Your task to perform on an android device: open app "Viber Messenger" Image 0: 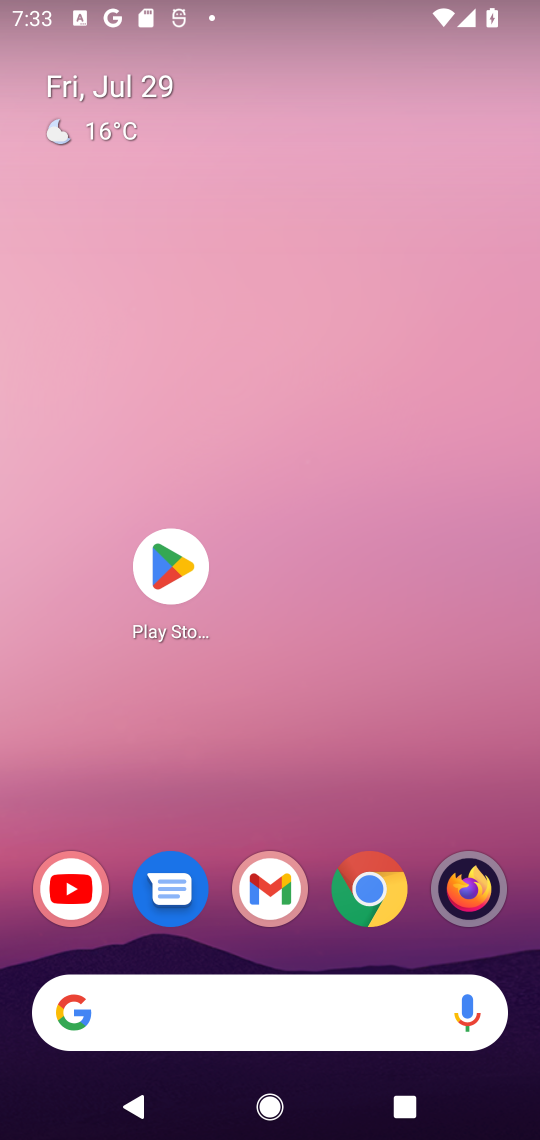
Step 0: click (173, 552)
Your task to perform on an android device: open app "Viber Messenger" Image 1: 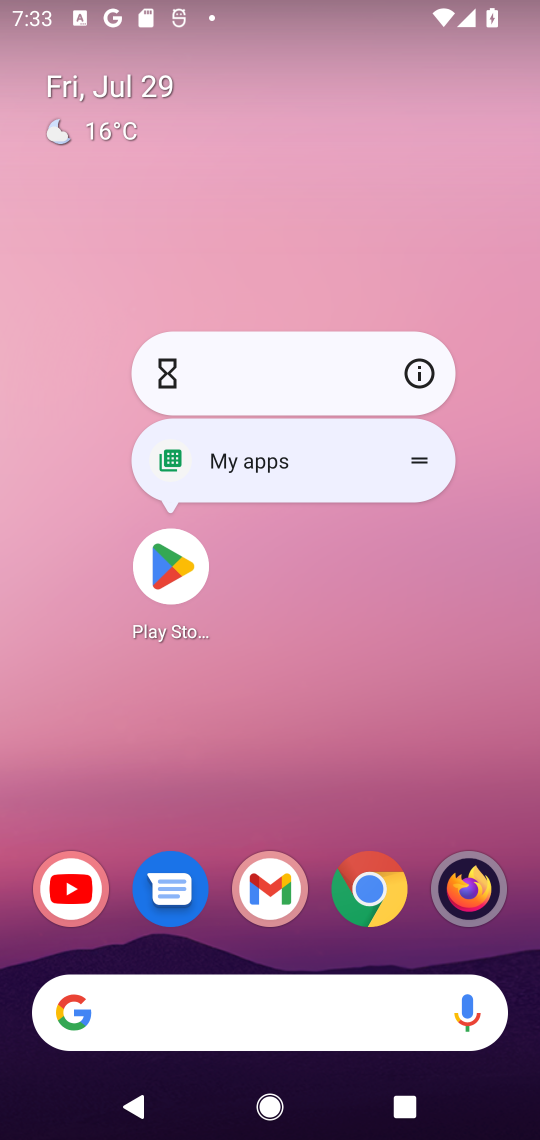
Step 1: click (183, 551)
Your task to perform on an android device: open app "Viber Messenger" Image 2: 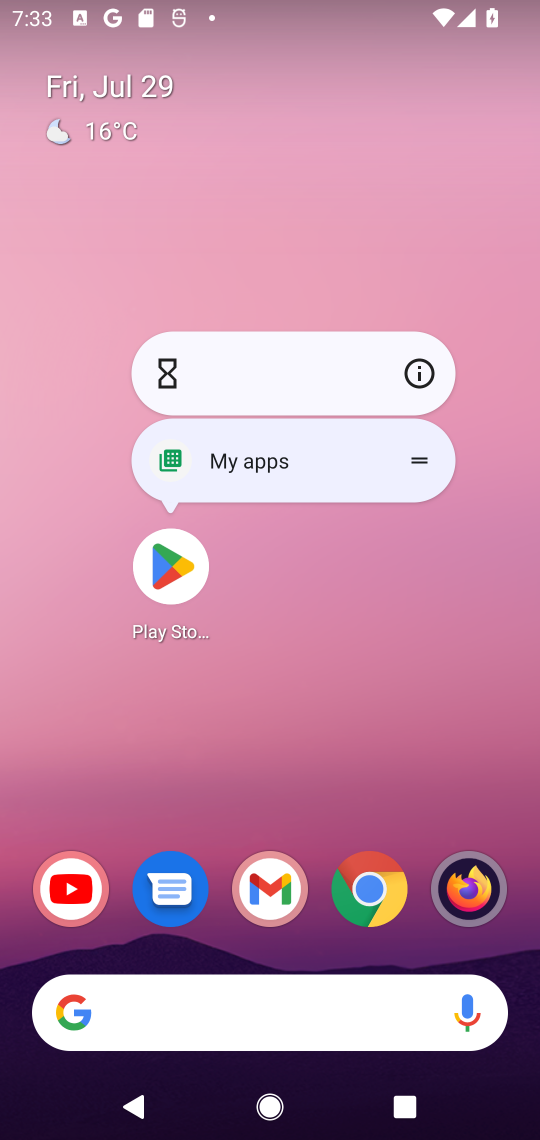
Step 2: click (172, 565)
Your task to perform on an android device: open app "Viber Messenger" Image 3: 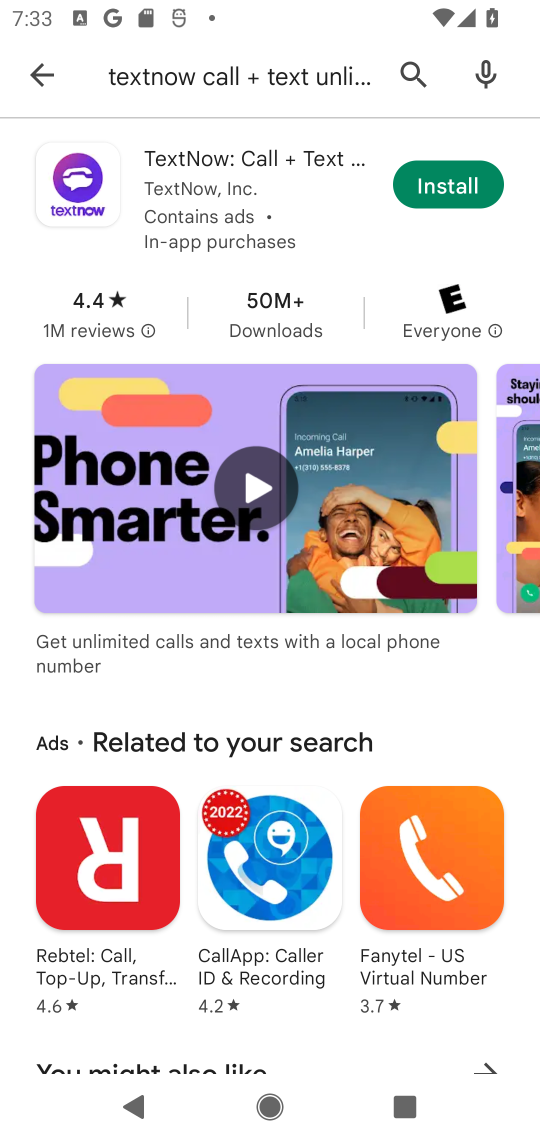
Step 3: click (413, 74)
Your task to perform on an android device: open app "Viber Messenger" Image 4: 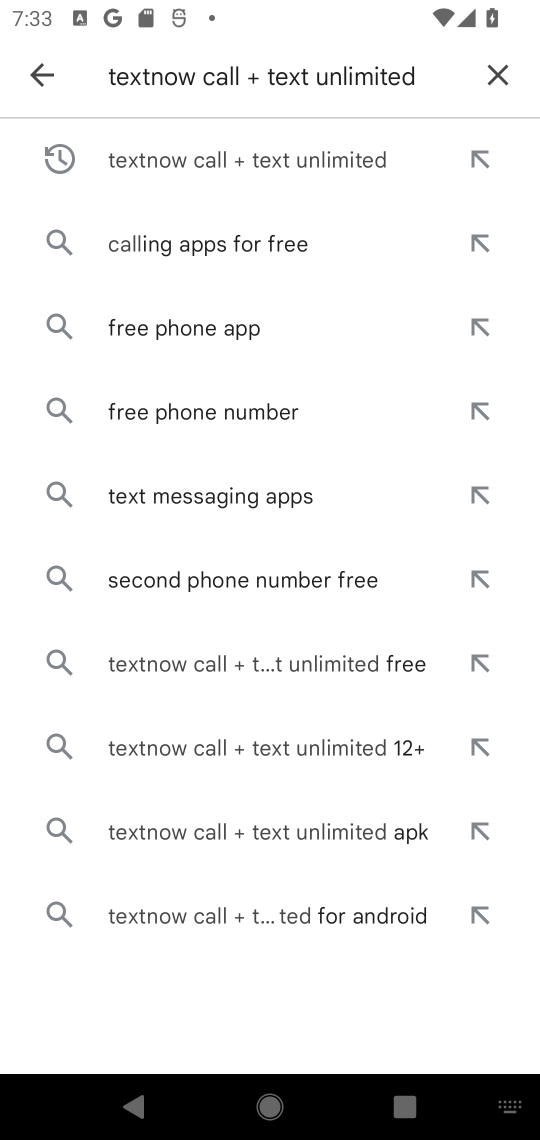
Step 4: click (499, 73)
Your task to perform on an android device: open app "Viber Messenger" Image 5: 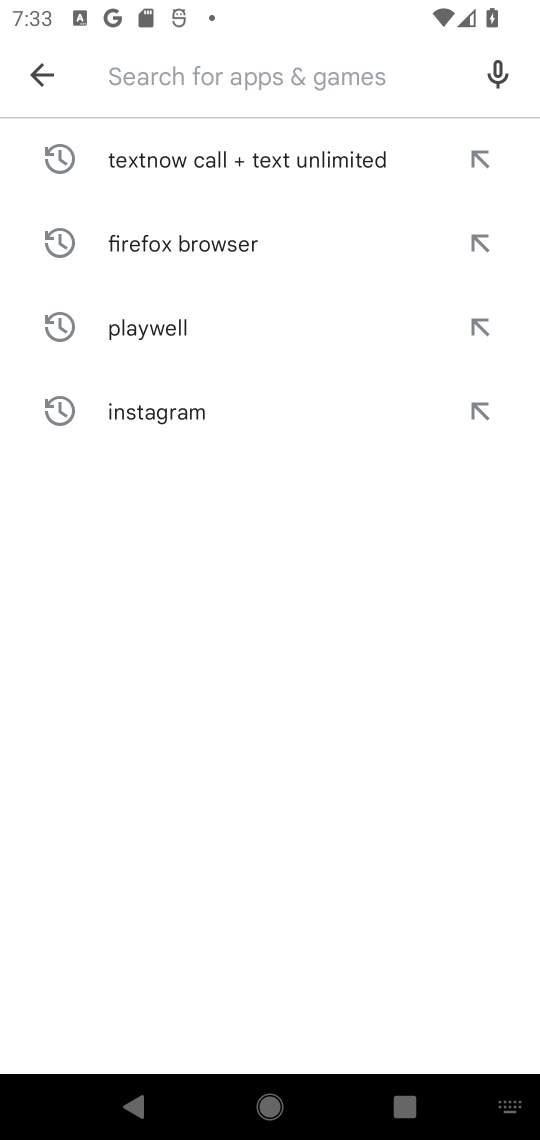
Step 5: type "Viber Messenger"
Your task to perform on an android device: open app "Viber Messenger" Image 6: 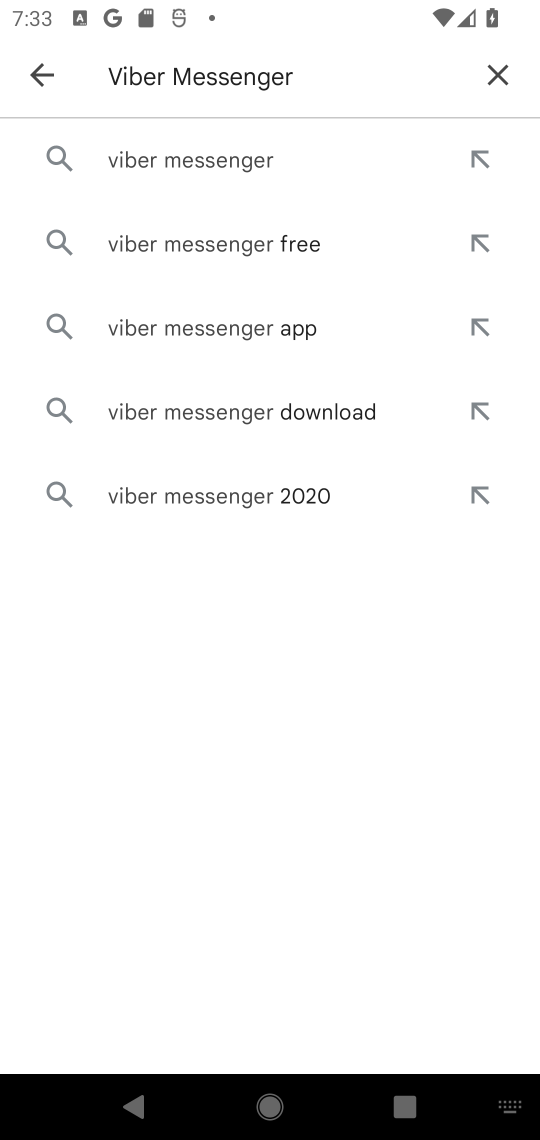
Step 6: click (225, 163)
Your task to perform on an android device: open app "Viber Messenger" Image 7: 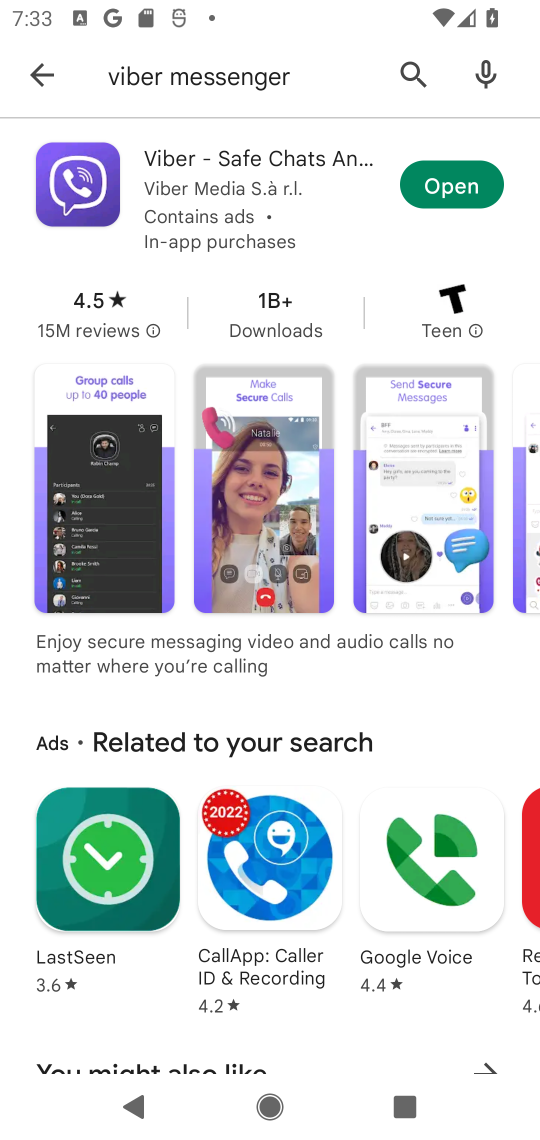
Step 7: click (455, 194)
Your task to perform on an android device: open app "Viber Messenger" Image 8: 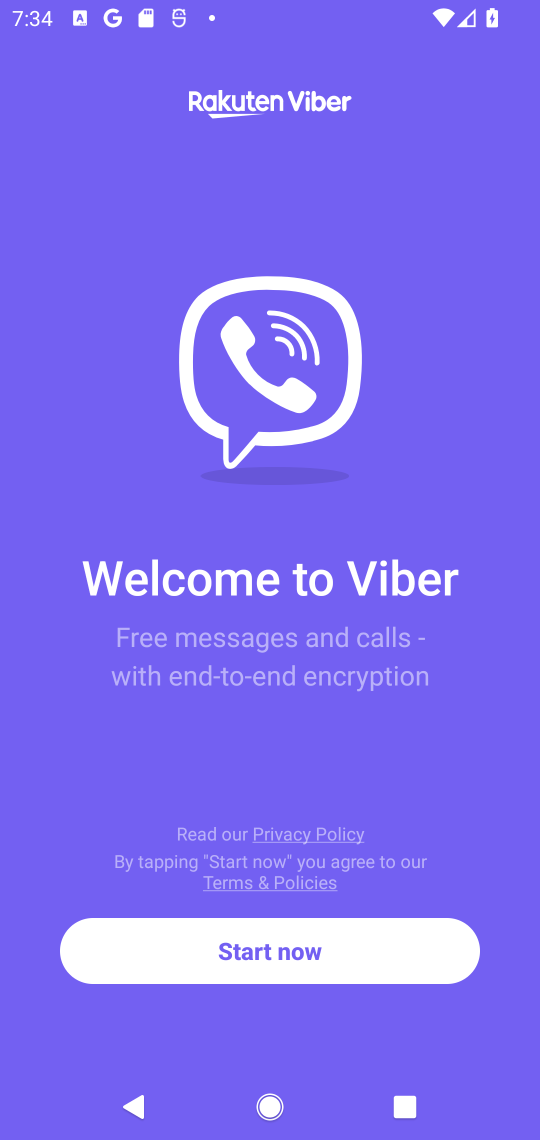
Step 8: task complete